Your task to perform on an android device: turn off sleep mode Image 0: 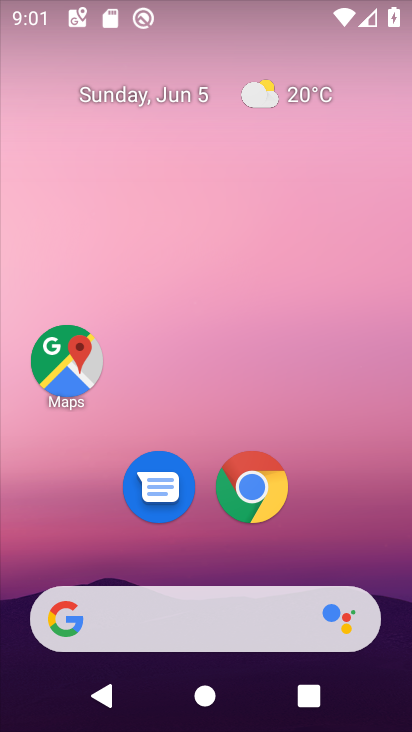
Step 0: drag from (168, 543) to (208, 185)
Your task to perform on an android device: turn off sleep mode Image 1: 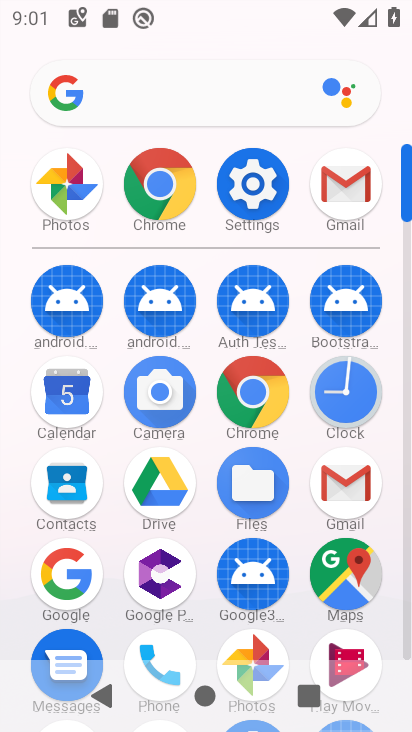
Step 1: click (246, 189)
Your task to perform on an android device: turn off sleep mode Image 2: 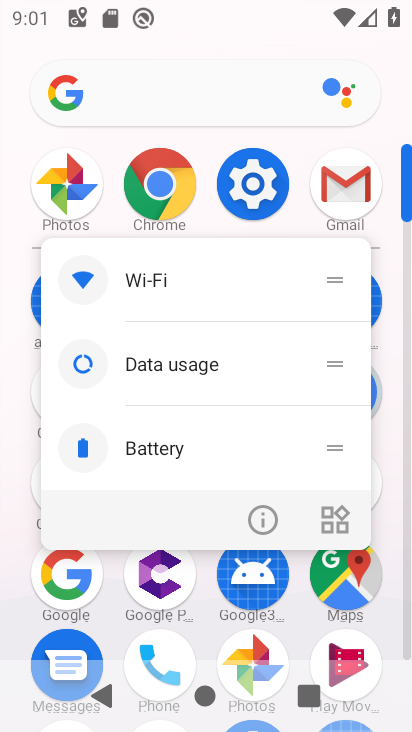
Step 2: click (251, 170)
Your task to perform on an android device: turn off sleep mode Image 3: 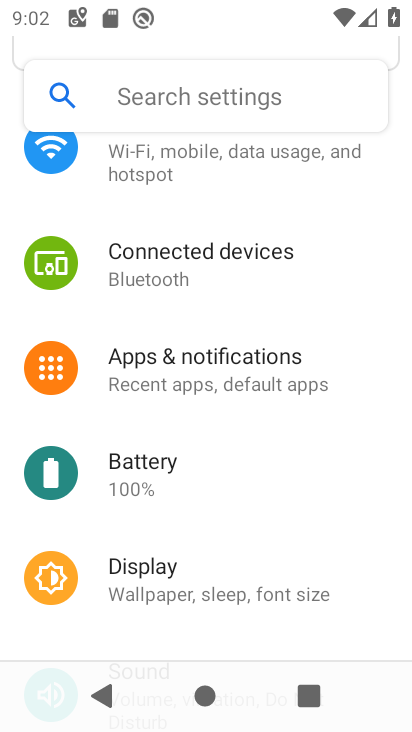
Step 3: task complete